Your task to perform on an android device: change timer sound Image 0: 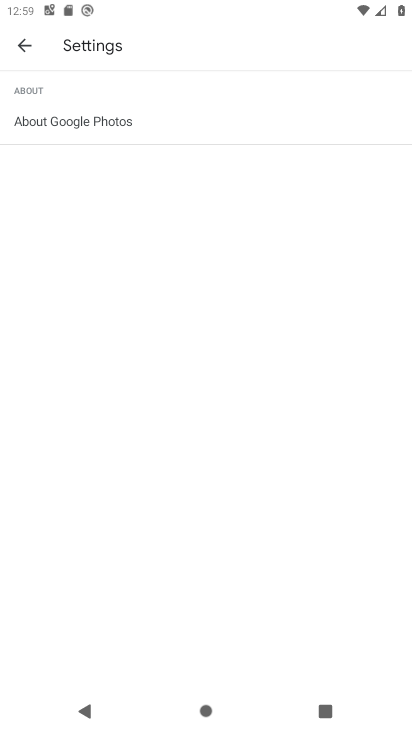
Step 0: press home button
Your task to perform on an android device: change timer sound Image 1: 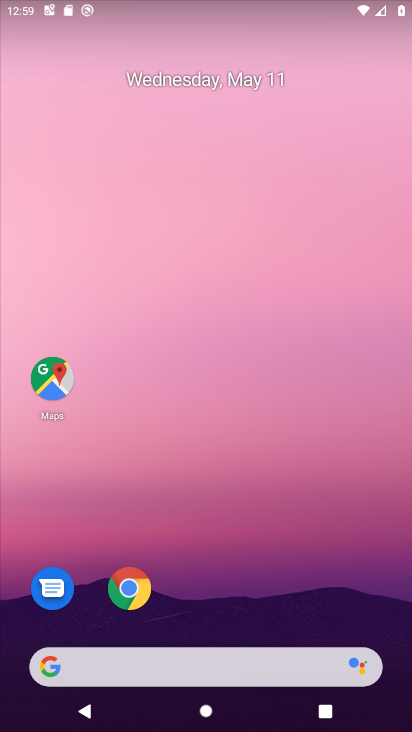
Step 1: drag from (139, 648) to (185, 297)
Your task to perform on an android device: change timer sound Image 2: 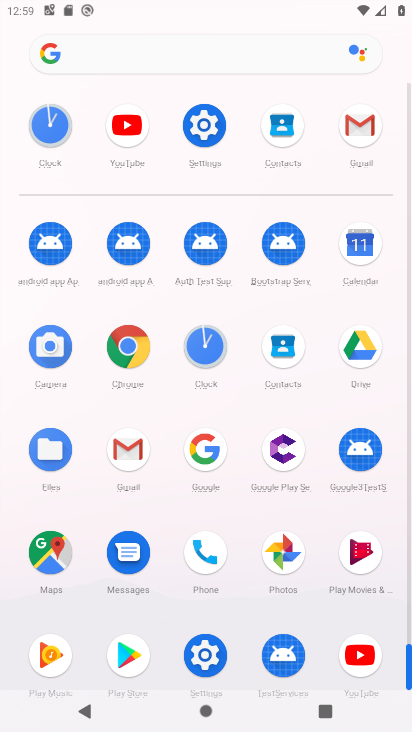
Step 2: click (189, 347)
Your task to perform on an android device: change timer sound Image 3: 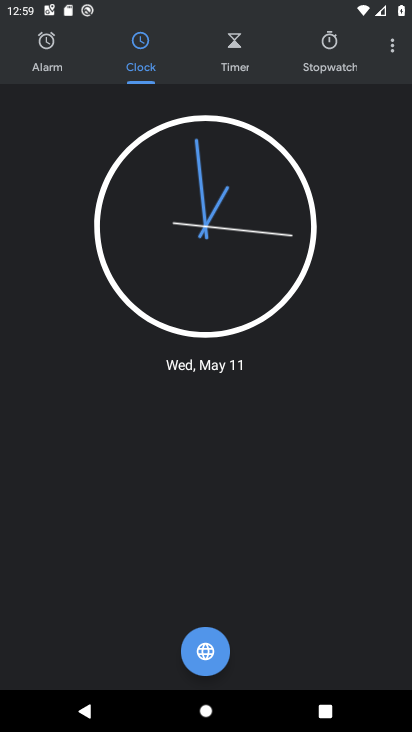
Step 3: click (397, 42)
Your task to perform on an android device: change timer sound Image 4: 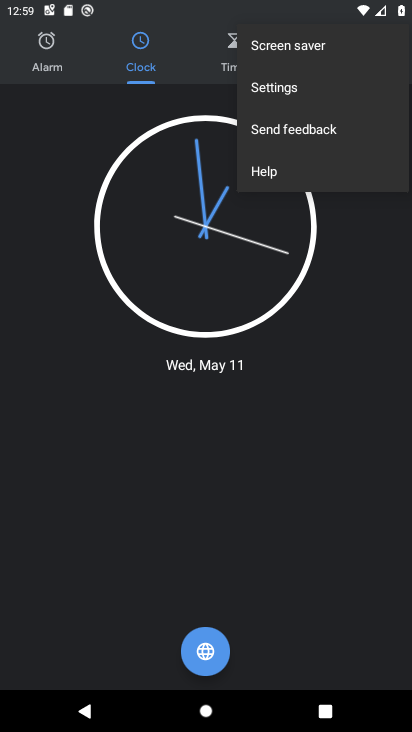
Step 4: click (285, 88)
Your task to perform on an android device: change timer sound Image 5: 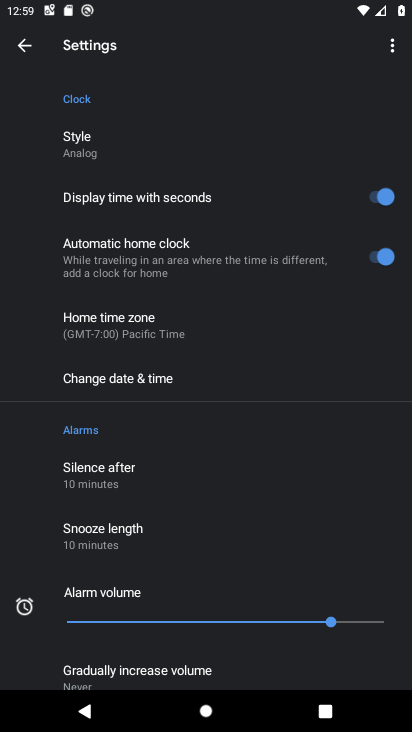
Step 5: drag from (154, 638) to (214, 294)
Your task to perform on an android device: change timer sound Image 6: 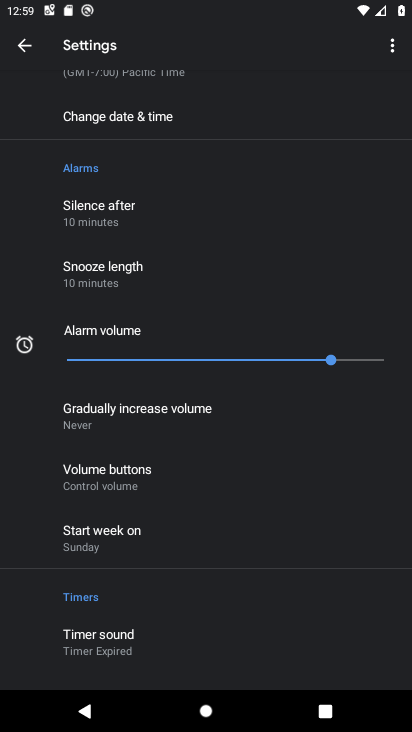
Step 6: click (113, 639)
Your task to perform on an android device: change timer sound Image 7: 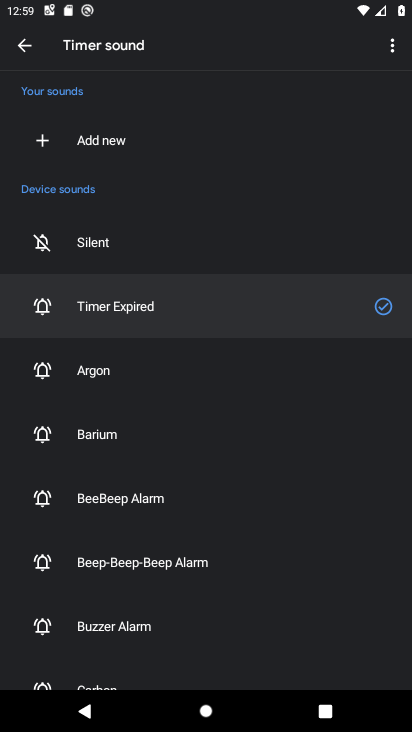
Step 7: click (103, 370)
Your task to perform on an android device: change timer sound Image 8: 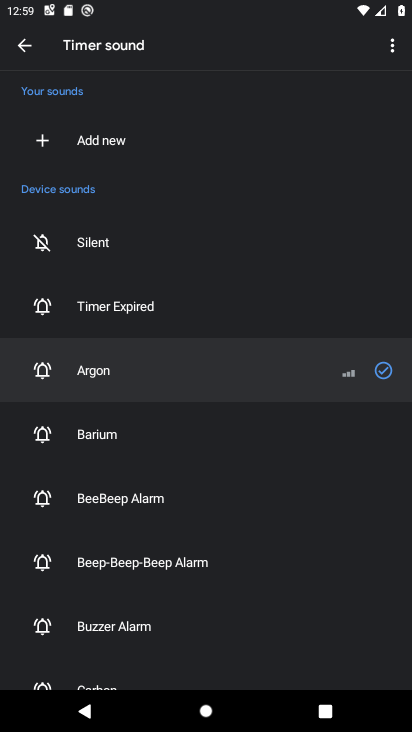
Step 8: task complete